Your task to perform on an android device: delete a single message in the gmail app Image 0: 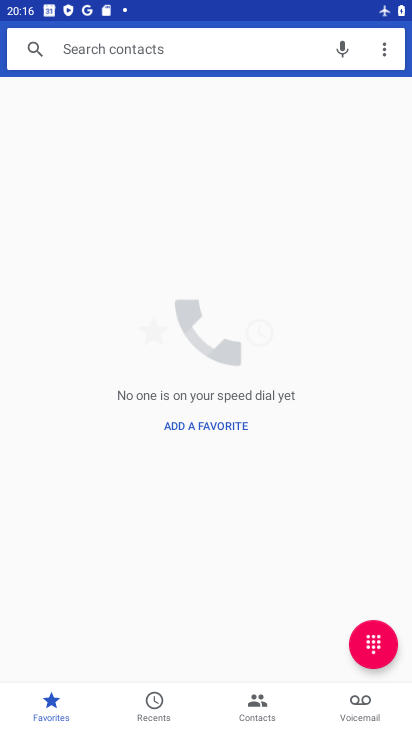
Step 0: press home button
Your task to perform on an android device: delete a single message in the gmail app Image 1: 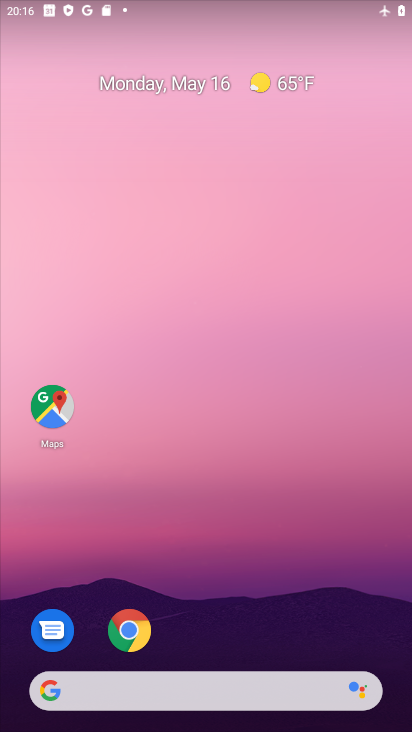
Step 1: drag from (231, 649) to (222, 264)
Your task to perform on an android device: delete a single message in the gmail app Image 2: 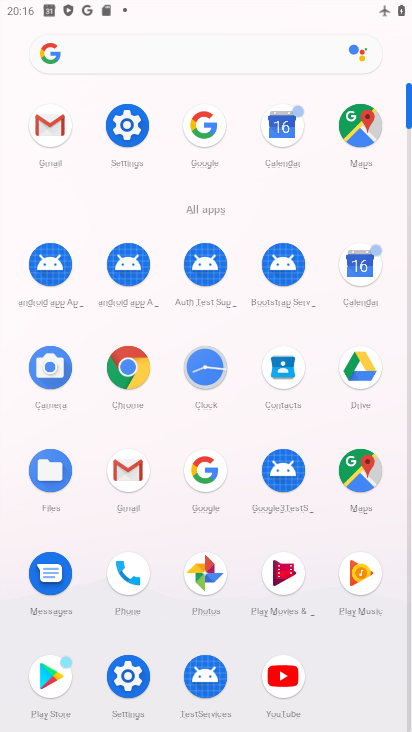
Step 2: click (45, 141)
Your task to perform on an android device: delete a single message in the gmail app Image 3: 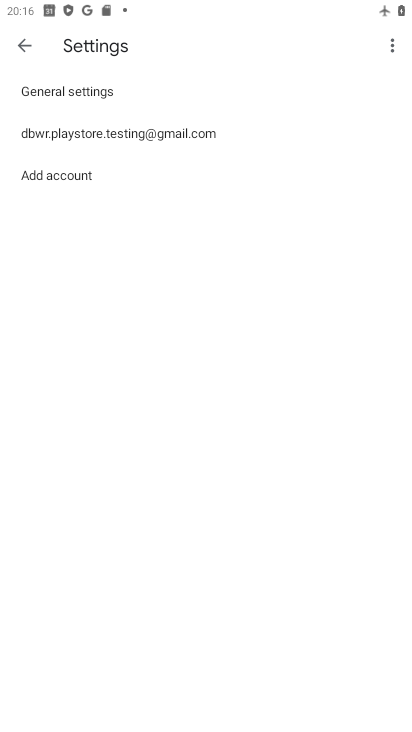
Step 3: click (21, 51)
Your task to perform on an android device: delete a single message in the gmail app Image 4: 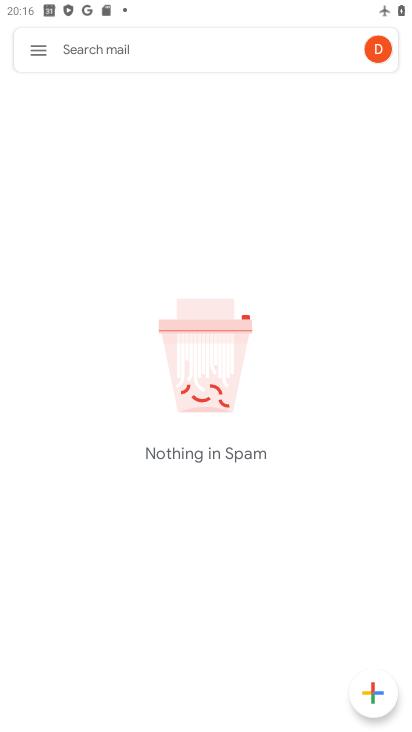
Step 4: click (21, 51)
Your task to perform on an android device: delete a single message in the gmail app Image 5: 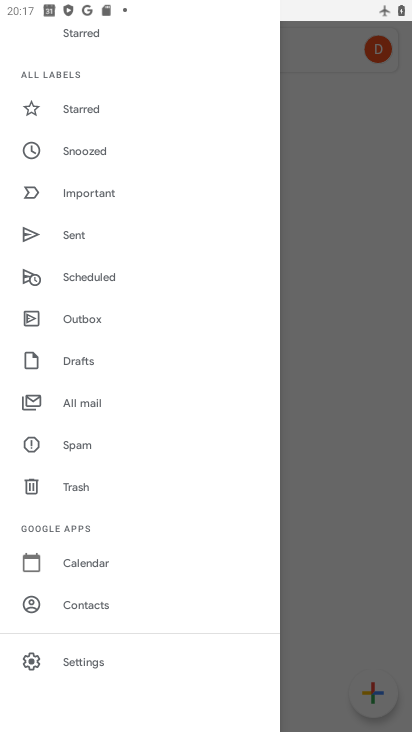
Step 5: click (94, 404)
Your task to perform on an android device: delete a single message in the gmail app Image 6: 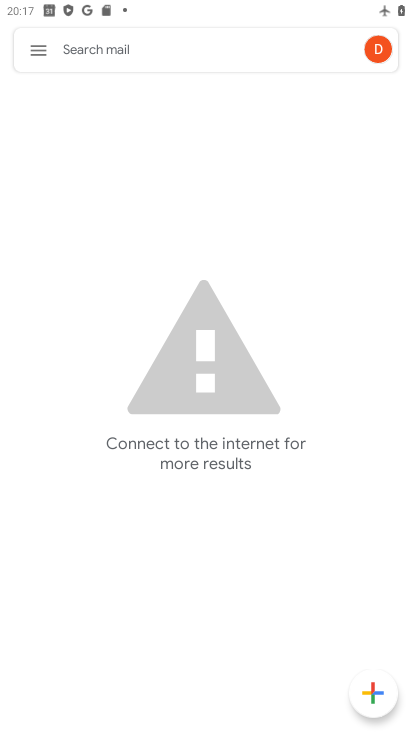
Step 6: task complete